Your task to perform on an android device: Open Google Chrome Image 0: 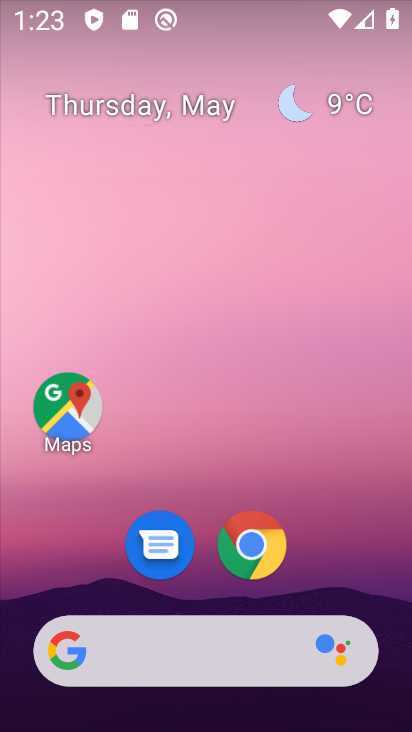
Step 0: click (254, 541)
Your task to perform on an android device: Open Google Chrome Image 1: 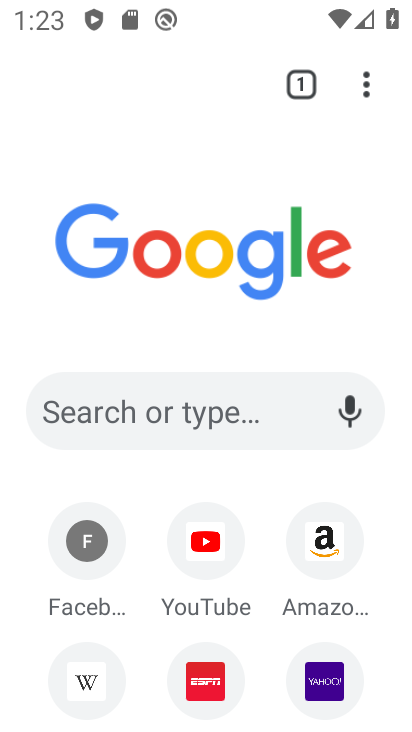
Step 1: click (361, 90)
Your task to perform on an android device: Open Google Chrome Image 2: 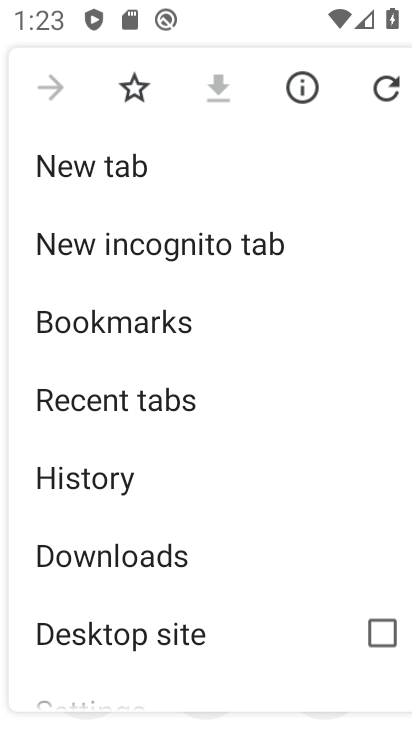
Step 2: task complete